Your task to perform on an android device: Open the map Image 0: 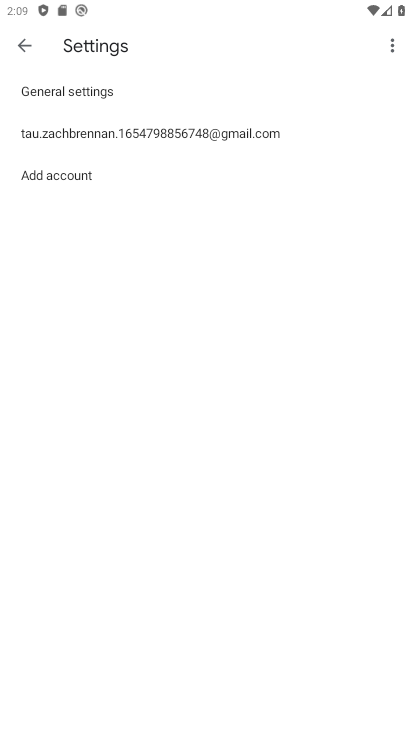
Step 0: press home button
Your task to perform on an android device: Open the map Image 1: 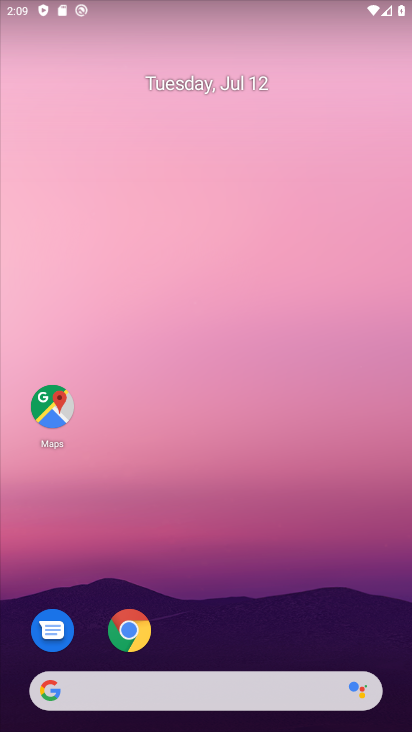
Step 1: click (50, 408)
Your task to perform on an android device: Open the map Image 2: 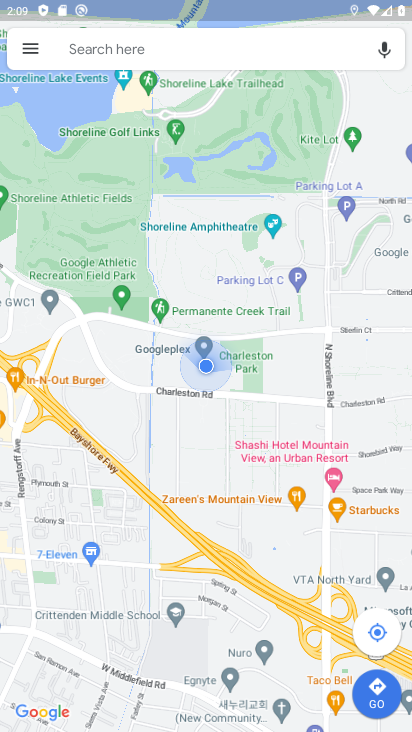
Step 2: task complete